Your task to perform on an android device: Open Android settings Image 0: 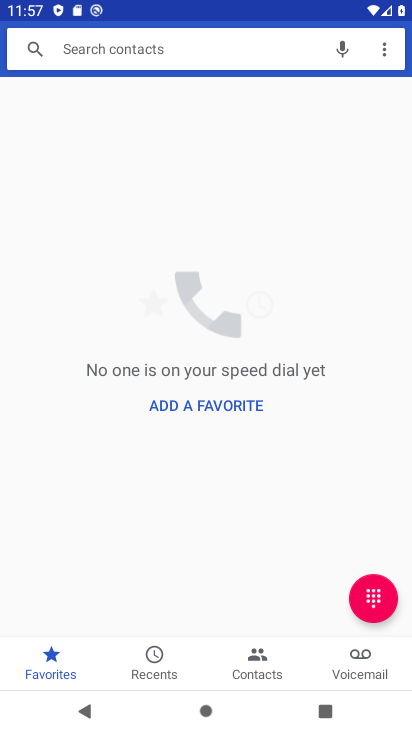
Step 0: press home button
Your task to perform on an android device: Open Android settings Image 1: 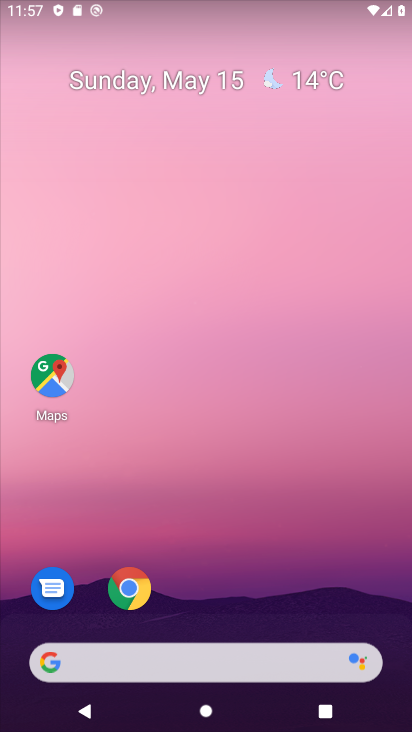
Step 1: click (301, 413)
Your task to perform on an android device: Open Android settings Image 2: 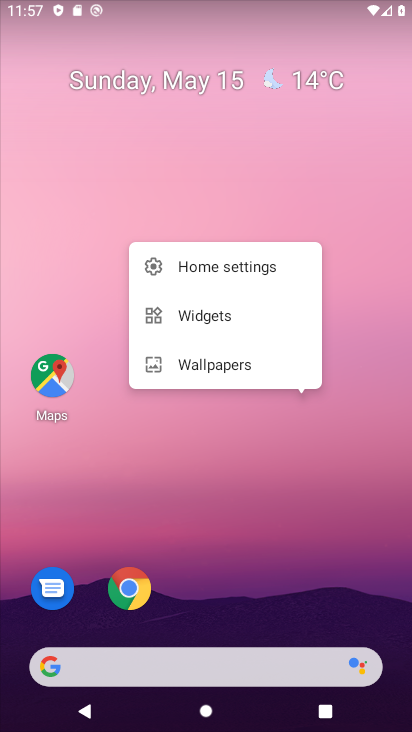
Step 2: drag from (189, 606) to (203, 104)
Your task to perform on an android device: Open Android settings Image 3: 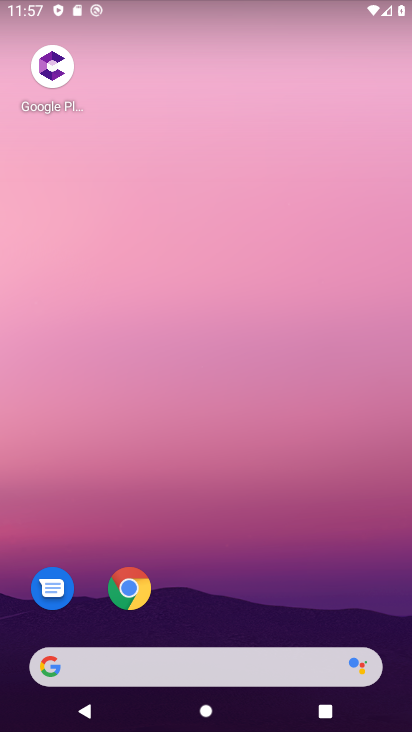
Step 3: drag from (180, 604) to (246, 148)
Your task to perform on an android device: Open Android settings Image 4: 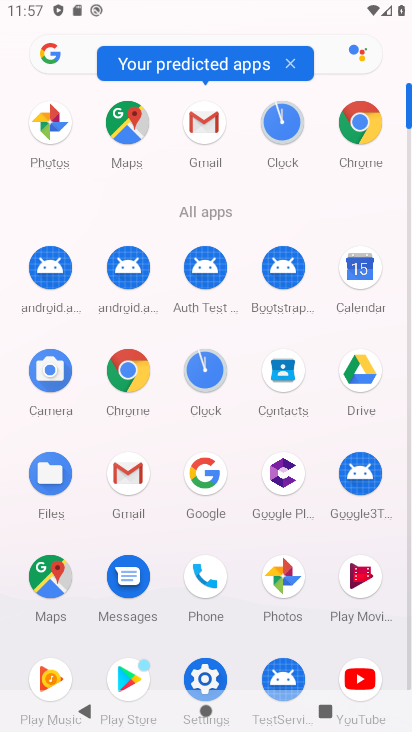
Step 4: click (207, 676)
Your task to perform on an android device: Open Android settings Image 5: 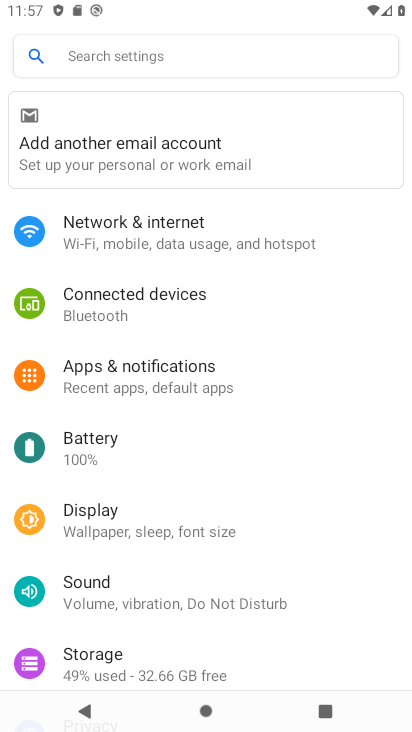
Step 5: drag from (157, 515) to (160, 278)
Your task to perform on an android device: Open Android settings Image 6: 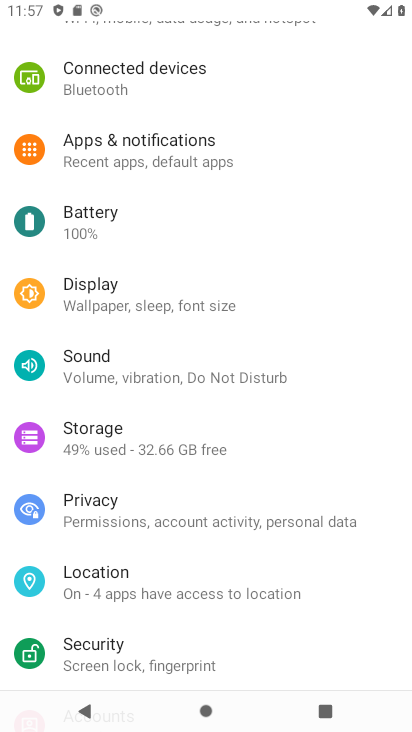
Step 6: drag from (137, 585) to (161, 357)
Your task to perform on an android device: Open Android settings Image 7: 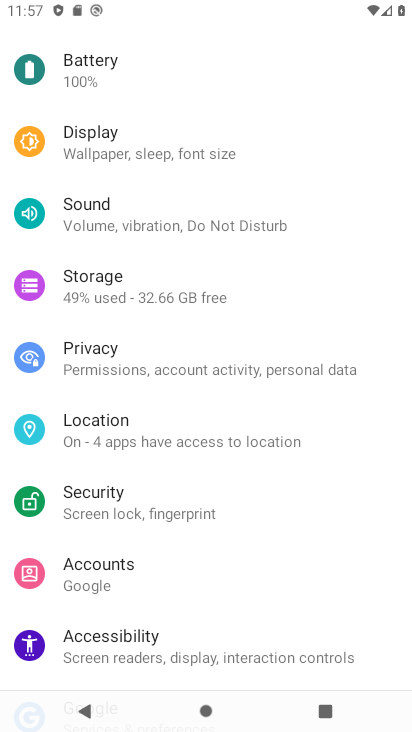
Step 7: drag from (150, 547) to (163, 153)
Your task to perform on an android device: Open Android settings Image 8: 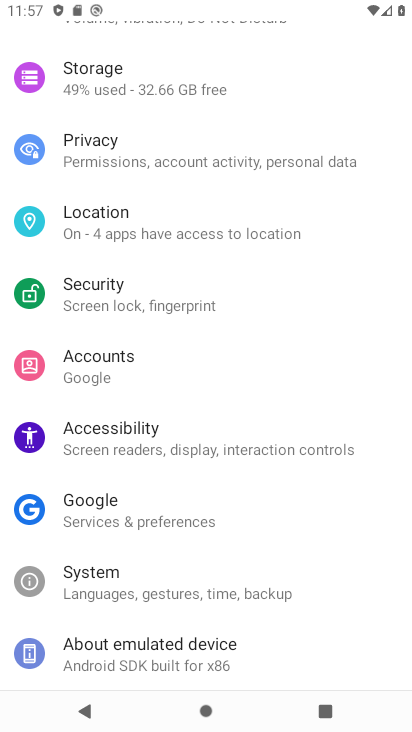
Step 8: drag from (152, 588) to (169, 330)
Your task to perform on an android device: Open Android settings Image 9: 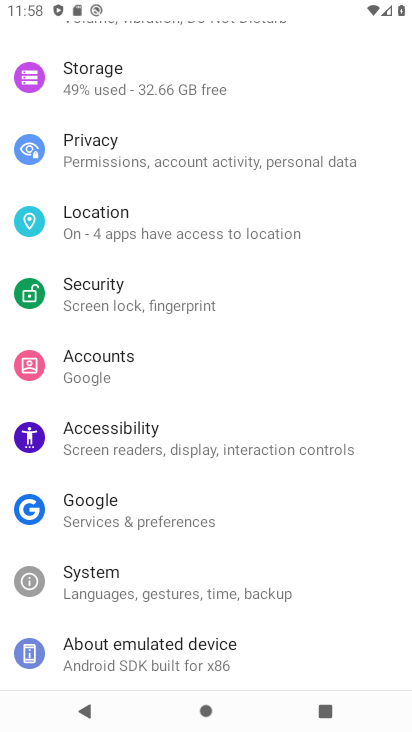
Step 9: click (205, 636)
Your task to perform on an android device: Open Android settings Image 10: 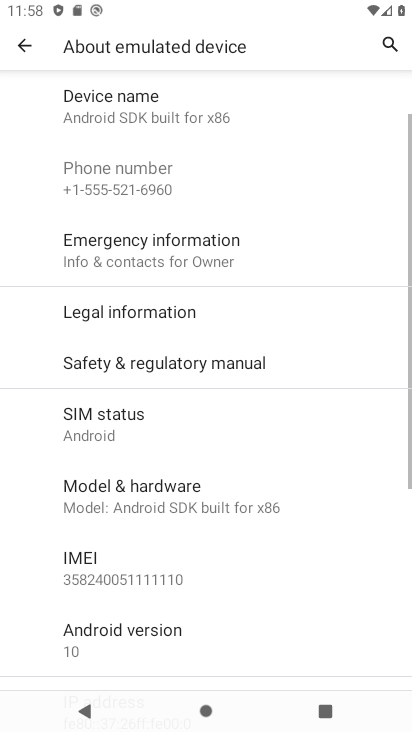
Step 10: task complete